Your task to perform on an android device: Search for seafood restaurants on Google Maps Image 0: 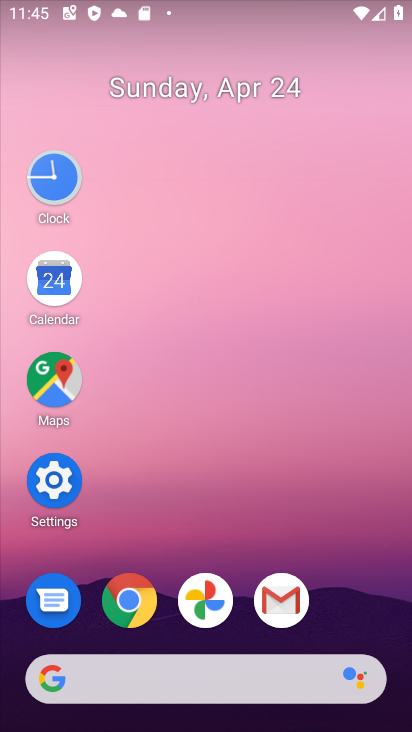
Step 0: click (47, 384)
Your task to perform on an android device: Search for seafood restaurants on Google Maps Image 1: 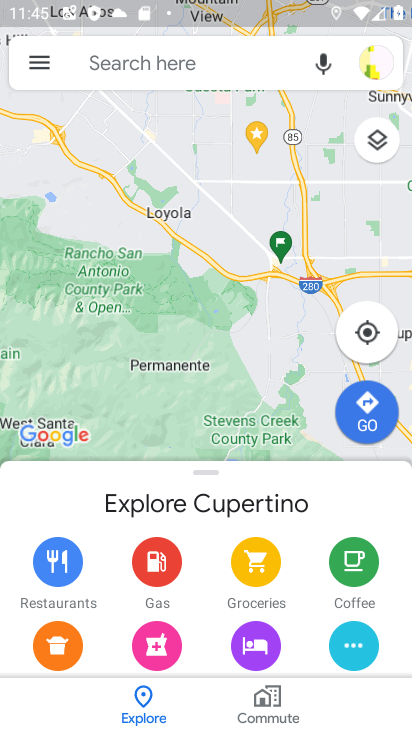
Step 1: click (233, 68)
Your task to perform on an android device: Search for seafood restaurants on Google Maps Image 2: 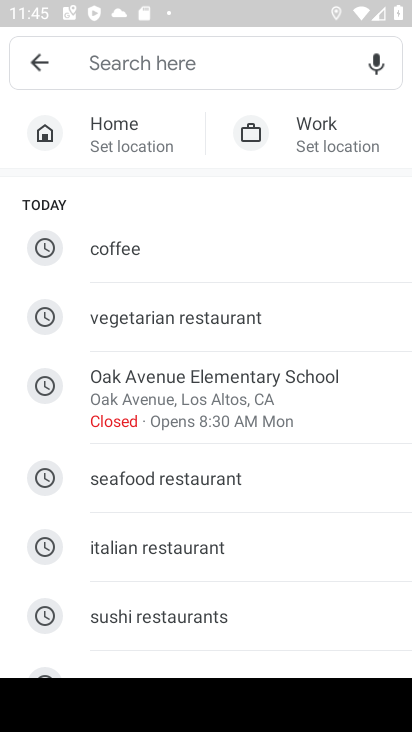
Step 2: click (168, 474)
Your task to perform on an android device: Search for seafood restaurants on Google Maps Image 3: 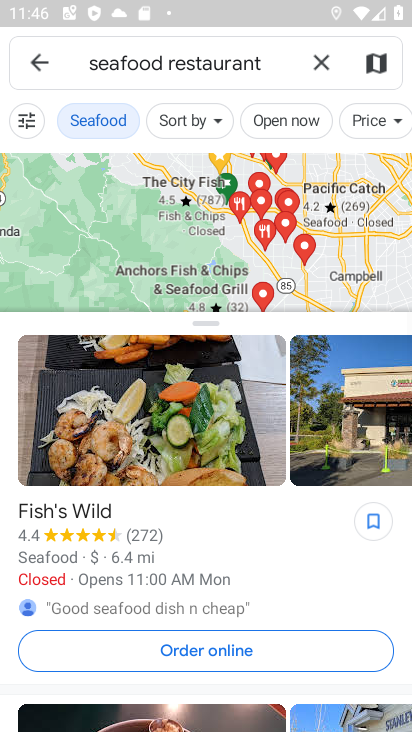
Step 3: task complete